Your task to perform on an android device: stop showing notifications on the lock screen Image 0: 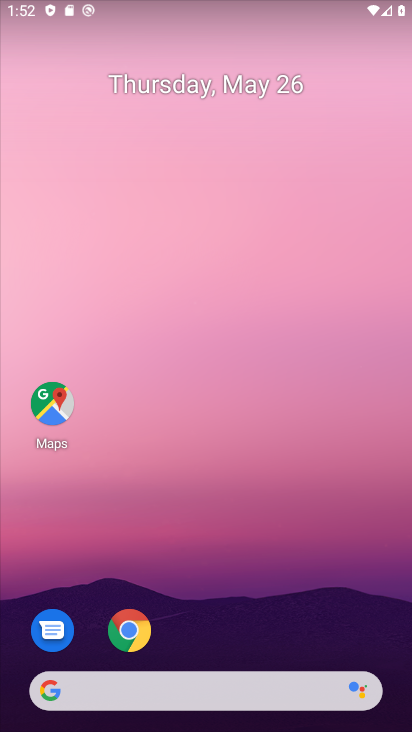
Step 0: drag from (234, 509) to (271, 83)
Your task to perform on an android device: stop showing notifications on the lock screen Image 1: 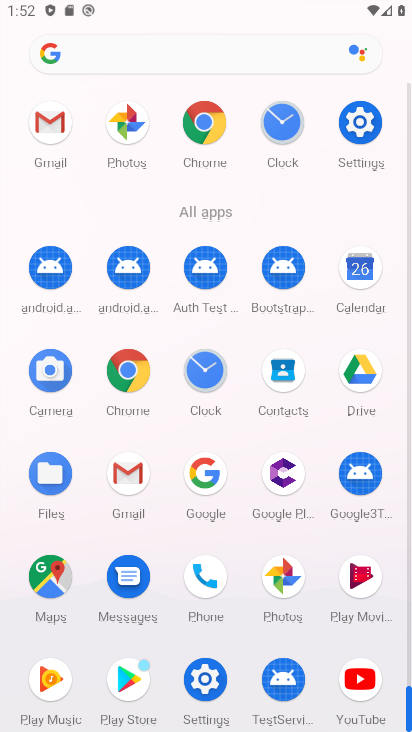
Step 1: click (363, 128)
Your task to perform on an android device: stop showing notifications on the lock screen Image 2: 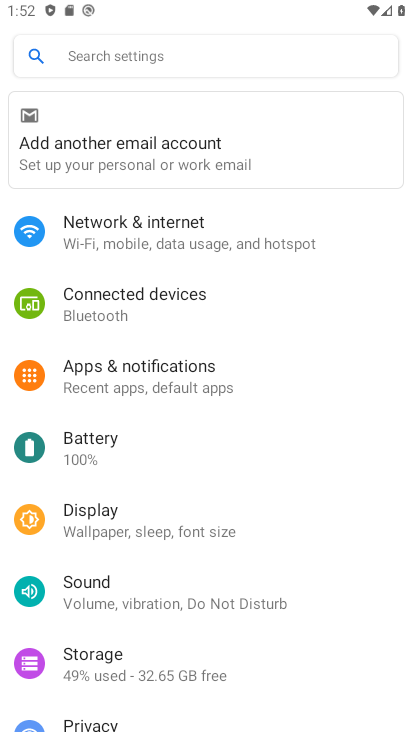
Step 2: click (149, 537)
Your task to perform on an android device: stop showing notifications on the lock screen Image 3: 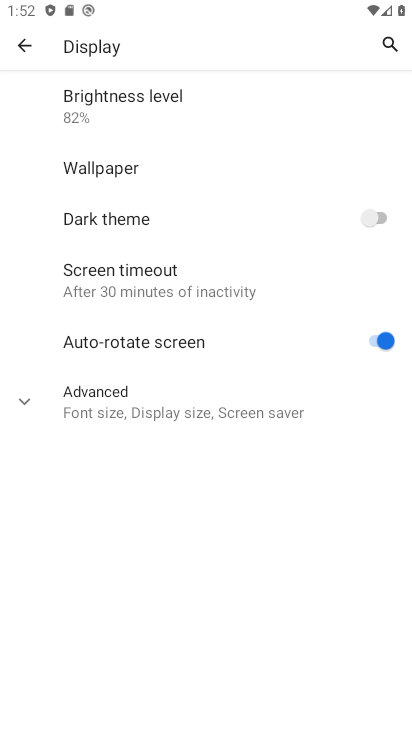
Step 3: click (146, 385)
Your task to perform on an android device: stop showing notifications on the lock screen Image 4: 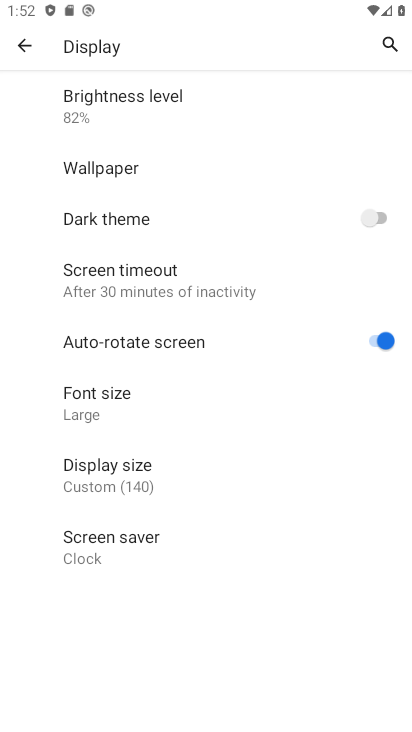
Step 4: press back button
Your task to perform on an android device: stop showing notifications on the lock screen Image 5: 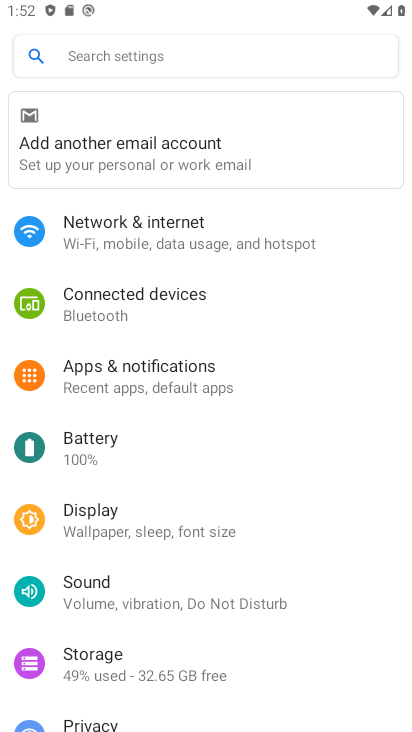
Step 5: click (223, 369)
Your task to perform on an android device: stop showing notifications on the lock screen Image 6: 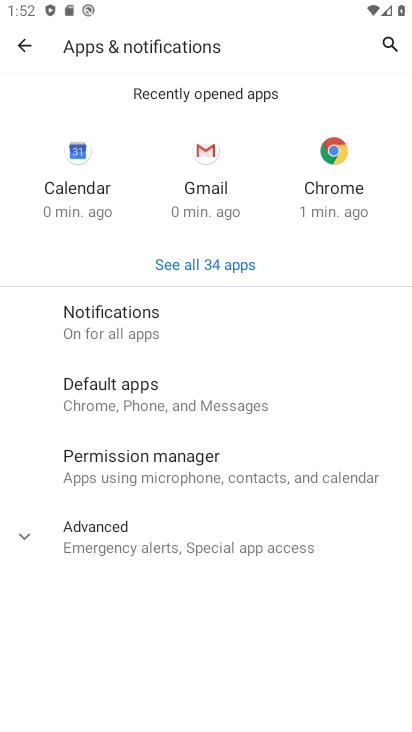
Step 6: click (166, 334)
Your task to perform on an android device: stop showing notifications on the lock screen Image 7: 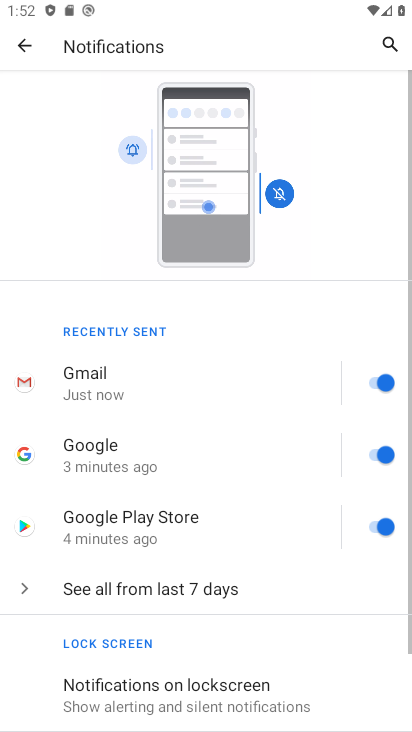
Step 7: drag from (206, 567) to (246, 266)
Your task to perform on an android device: stop showing notifications on the lock screen Image 8: 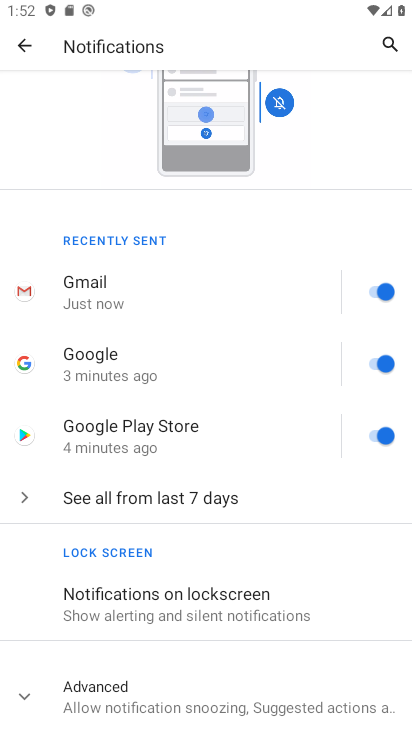
Step 8: click (233, 606)
Your task to perform on an android device: stop showing notifications on the lock screen Image 9: 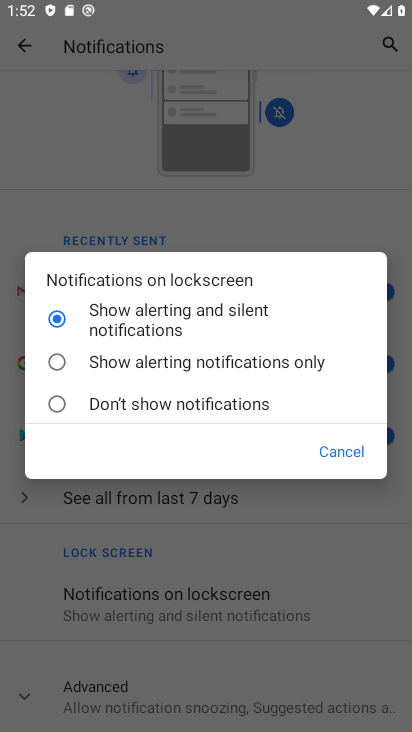
Step 9: click (58, 411)
Your task to perform on an android device: stop showing notifications on the lock screen Image 10: 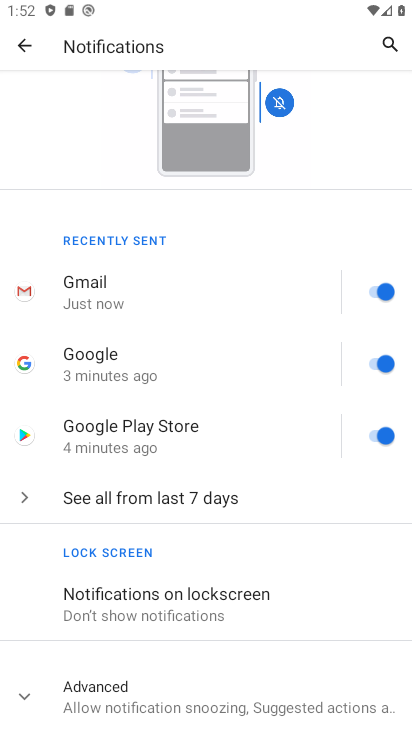
Step 10: task complete